Your task to perform on an android device: delete a single message in the gmail app Image 0: 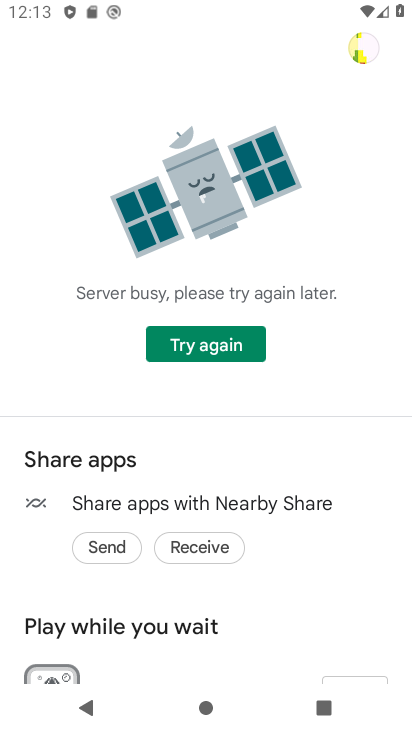
Step 0: press home button
Your task to perform on an android device: delete a single message in the gmail app Image 1: 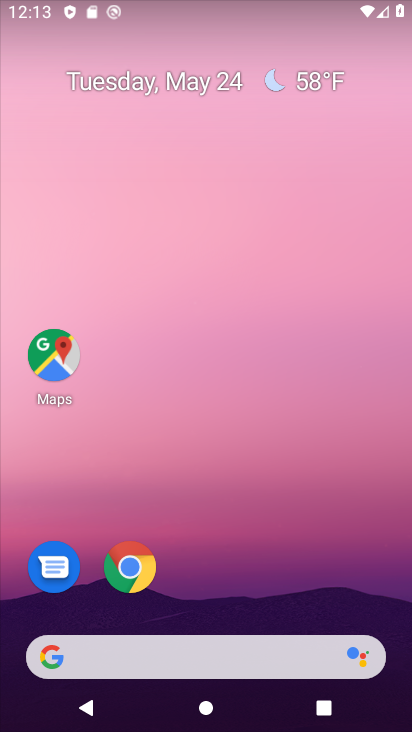
Step 1: drag from (180, 378) to (195, 214)
Your task to perform on an android device: delete a single message in the gmail app Image 2: 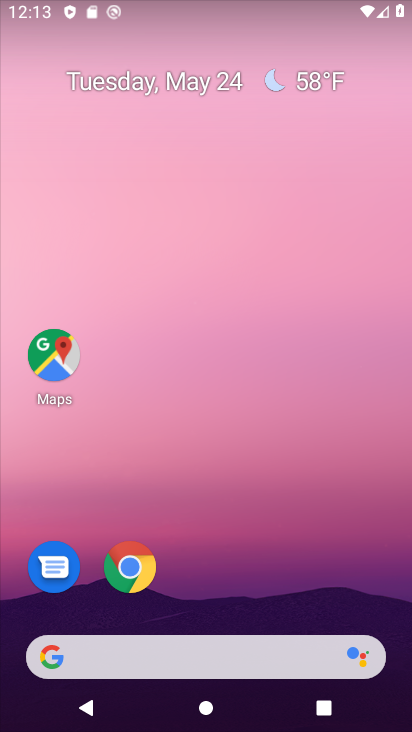
Step 2: drag from (229, 642) to (199, 134)
Your task to perform on an android device: delete a single message in the gmail app Image 3: 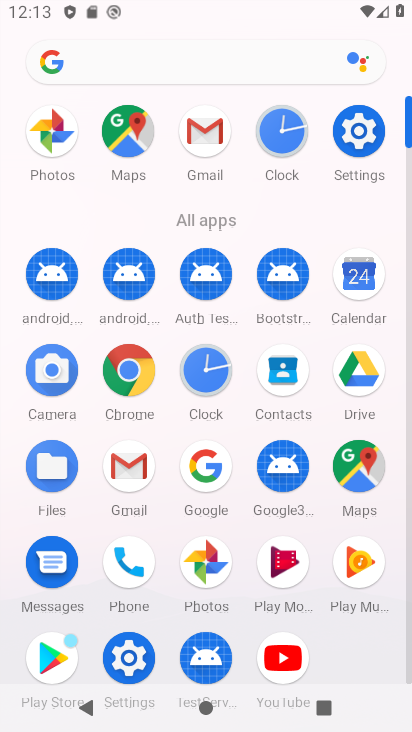
Step 3: click (139, 471)
Your task to perform on an android device: delete a single message in the gmail app Image 4: 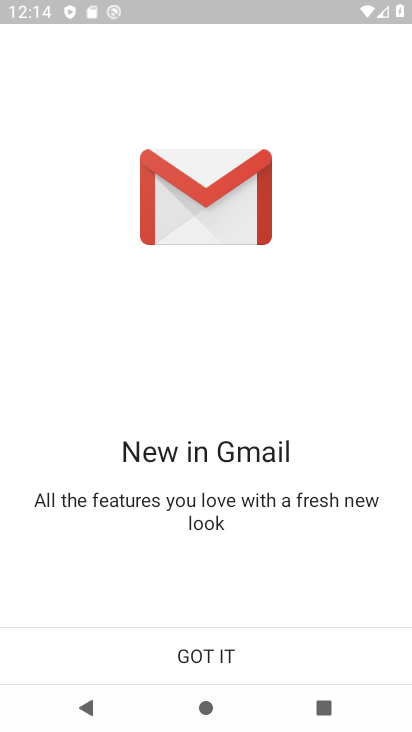
Step 4: click (208, 656)
Your task to perform on an android device: delete a single message in the gmail app Image 5: 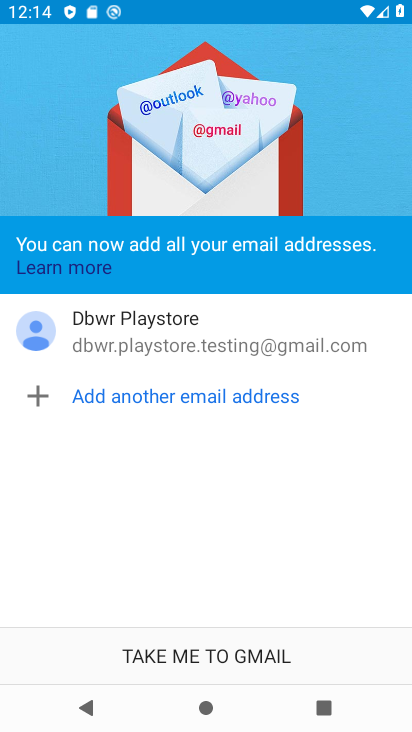
Step 5: click (274, 653)
Your task to perform on an android device: delete a single message in the gmail app Image 6: 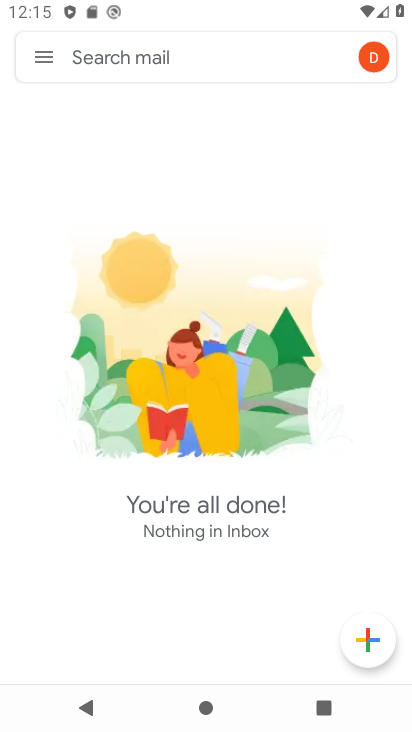
Step 6: click (40, 67)
Your task to perform on an android device: delete a single message in the gmail app Image 7: 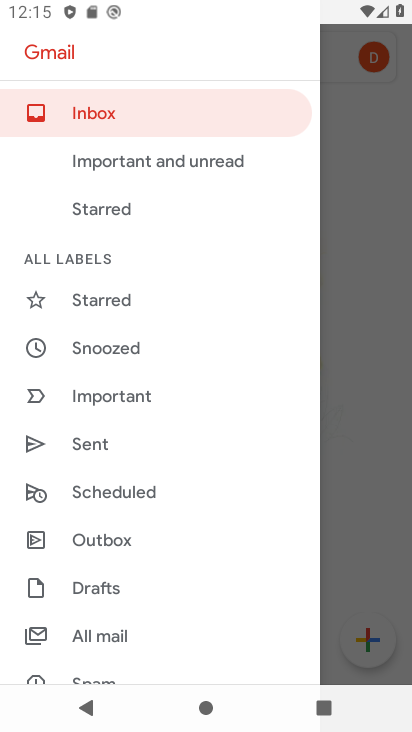
Step 7: click (112, 629)
Your task to perform on an android device: delete a single message in the gmail app Image 8: 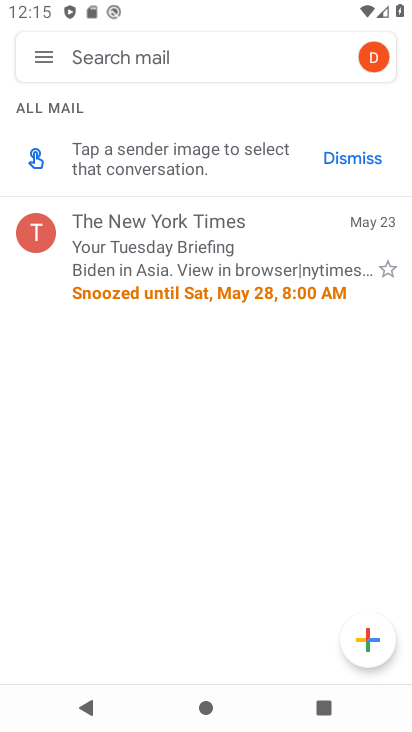
Step 8: click (37, 221)
Your task to perform on an android device: delete a single message in the gmail app Image 9: 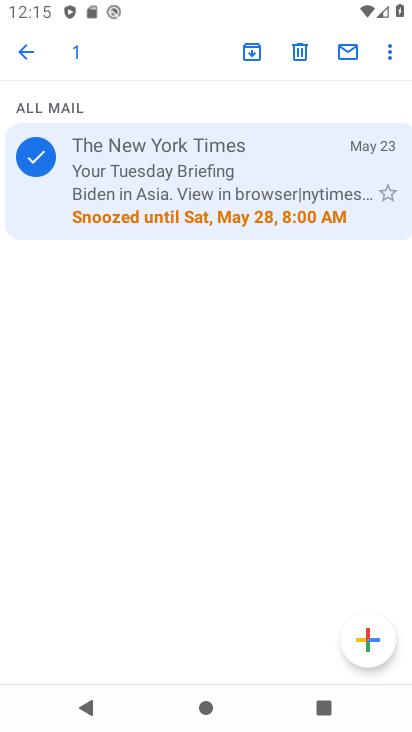
Step 9: click (304, 60)
Your task to perform on an android device: delete a single message in the gmail app Image 10: 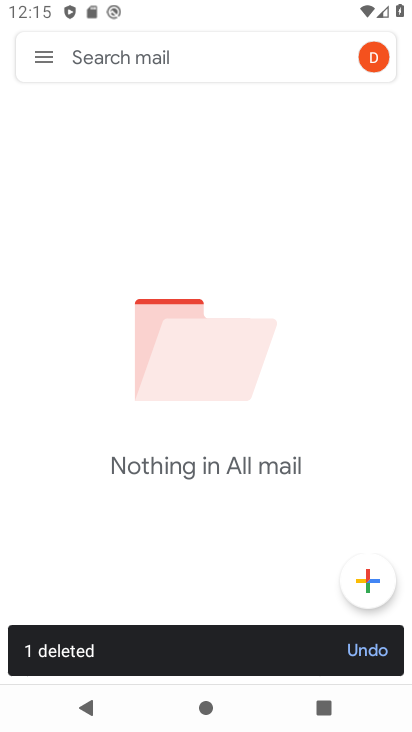
Step 10: task complete